Your task to perform on an android device: open the mobile data screen to see how much data has been used Image 0: 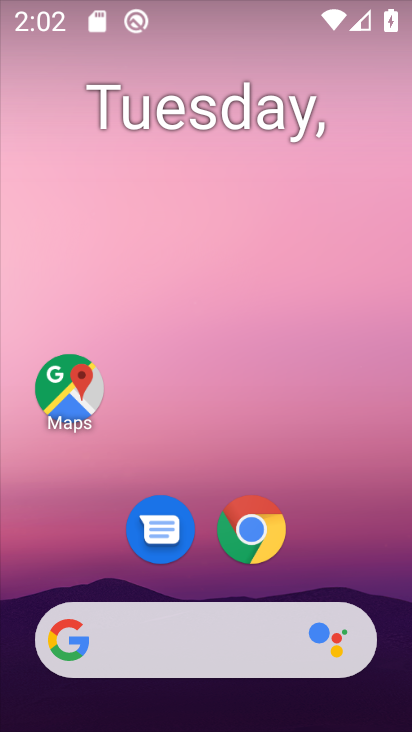
Step 0: drag from (189, 590) to (280, 90)
Your task to perform on an android device: open the mobile data screen to see how much data has been used Image 1: 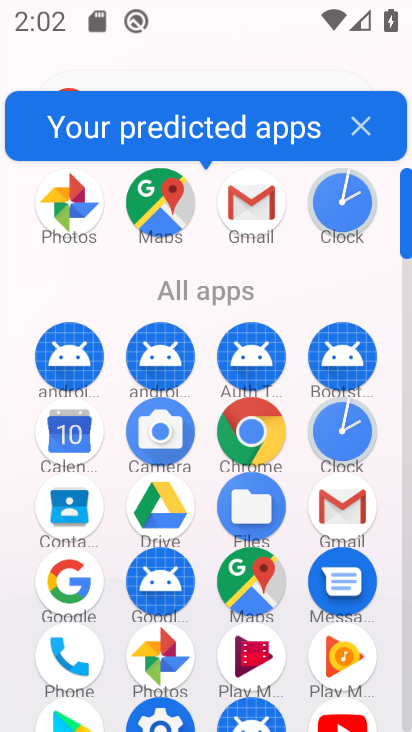
Step 1: drag from (192, 644) to (244, 354)
Your task to perform on an android device: open the mobile data screen to see how much data has been used Image 2: 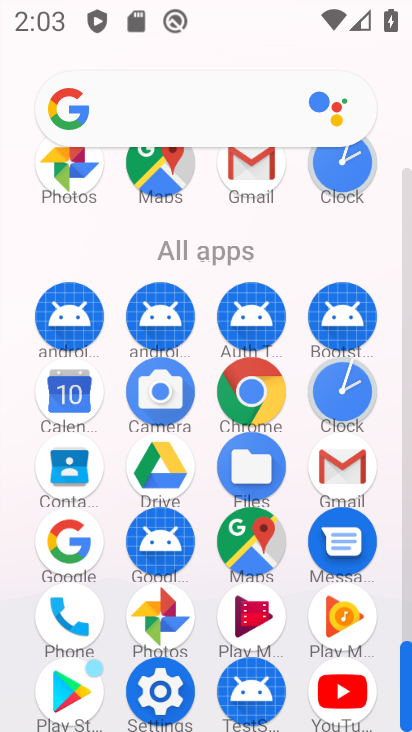
Step 2: click (167, 690)
Your task to perform on an android device: open the mobile data screen to see how much data has been used Image 3: 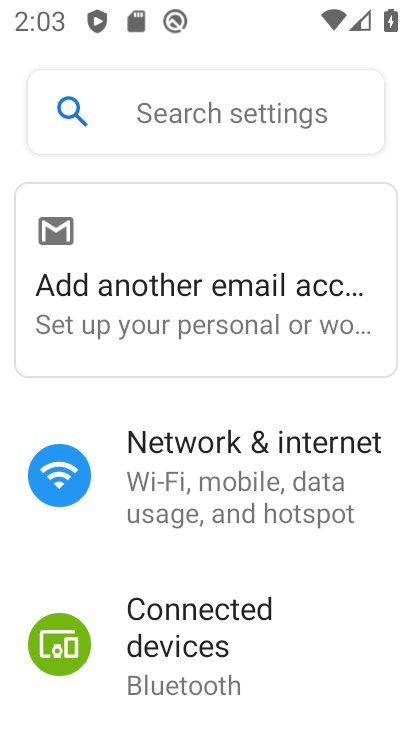
Step 3: click (277, 492)
Your task to perform on an android device: open the mobile data screen to see how much data has been used Image 4: 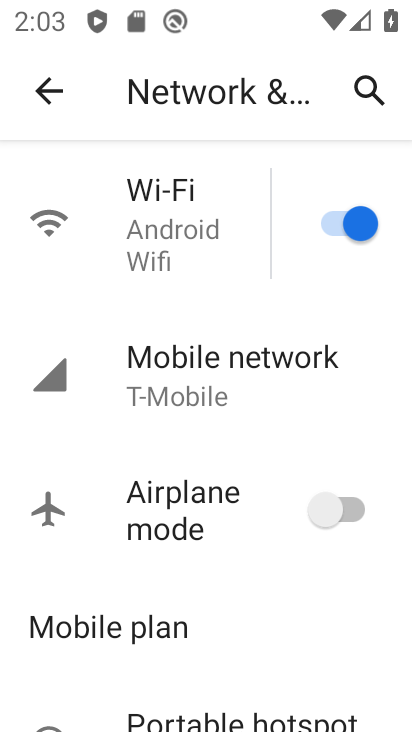
Step 4: click (212, 393)
Your task to perform on an android device: open the mobile data screen to see how much data has been used Image 5: 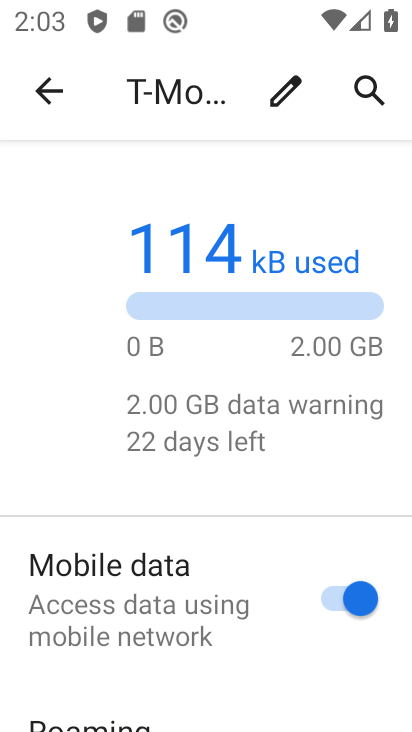
Step 5: task complete